Your task to perform on an android device: Go to calendar. Show me events next week Image 0: 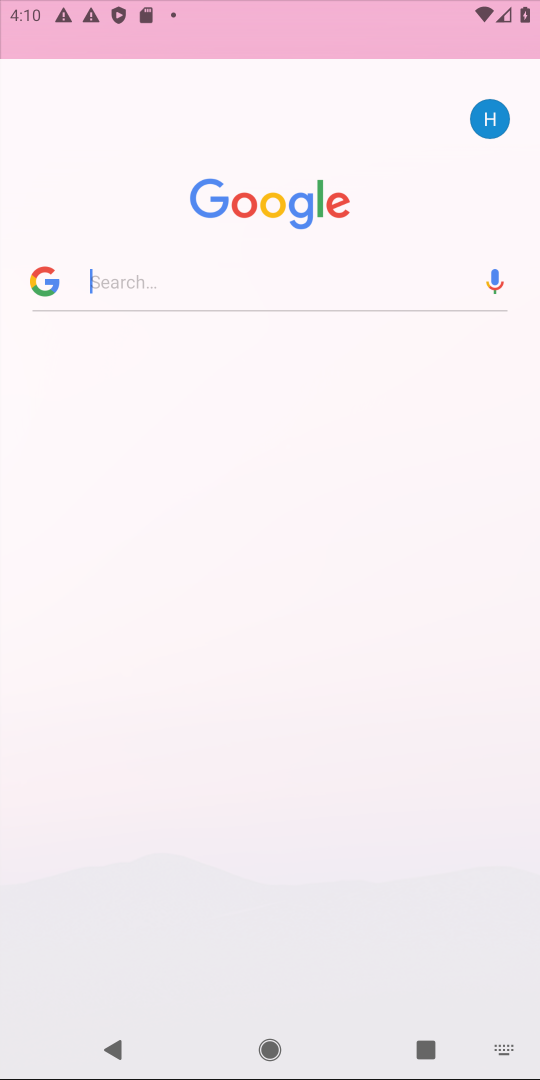
Step 0: press home button
Your task to perform on an android device: Go to calendar. Show me events next week Image 1: 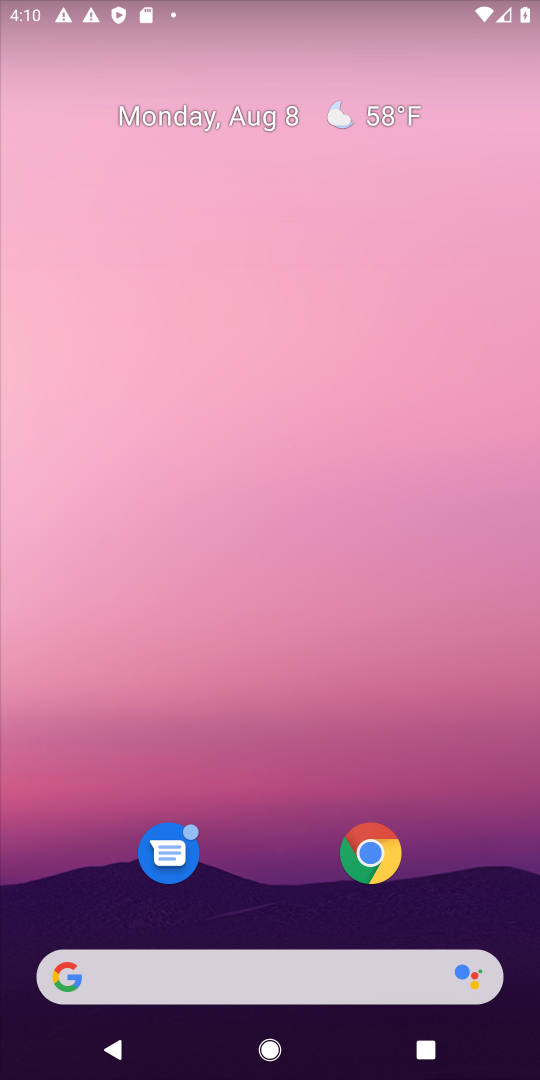
Step 1: drag from (298, 874) to (288, 90)
Your task to perform on an android device: Go to calendar. Show me events next week Image 2: 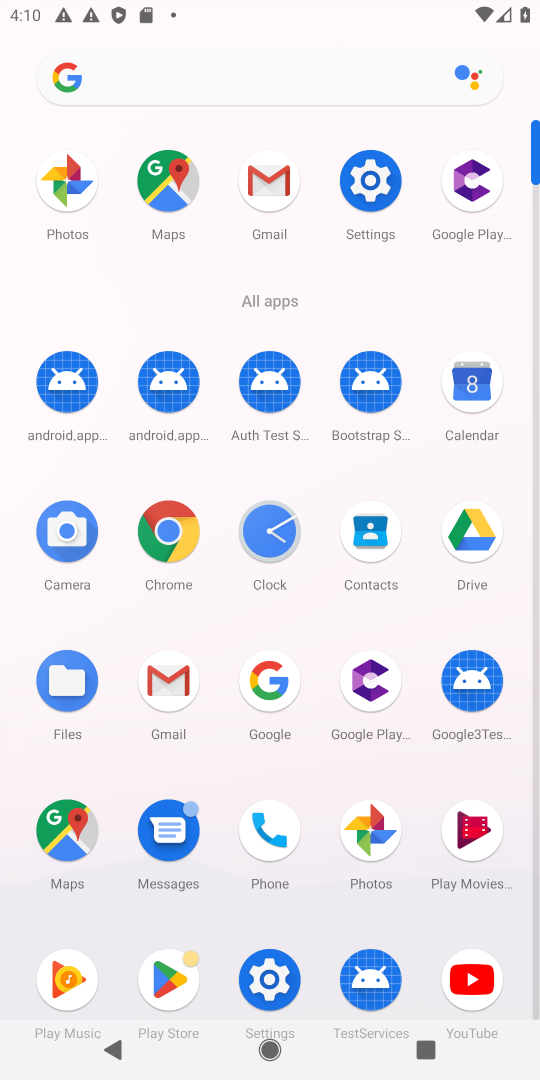
Step 2: click (469, 380)
Your task to perform on an android device: Go to calendar. Show me events next week Image 3: 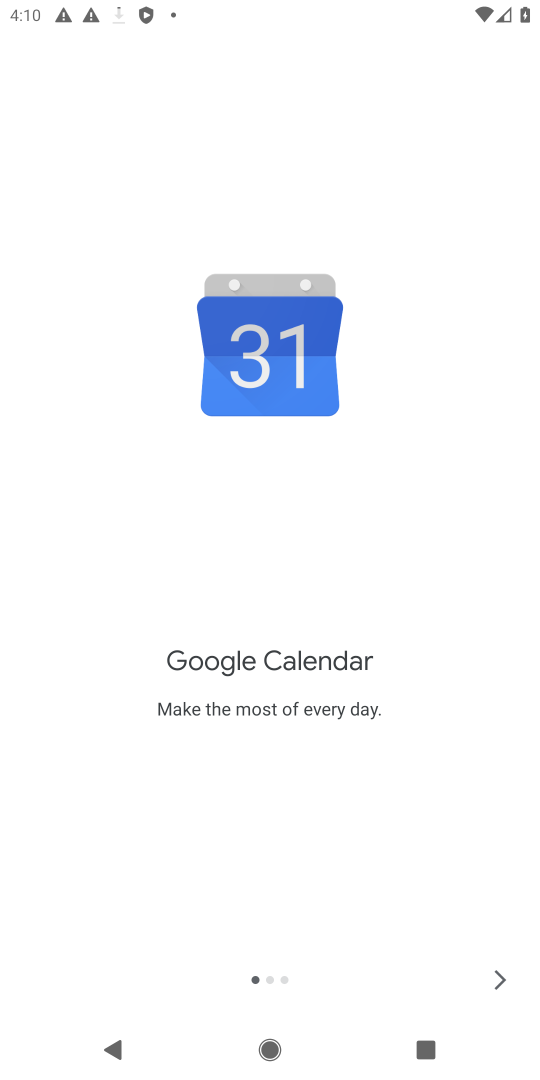
Step 3: click (501, 977)
Your task to perform on an android device: Go to calendar. Show me events next week Image 4: 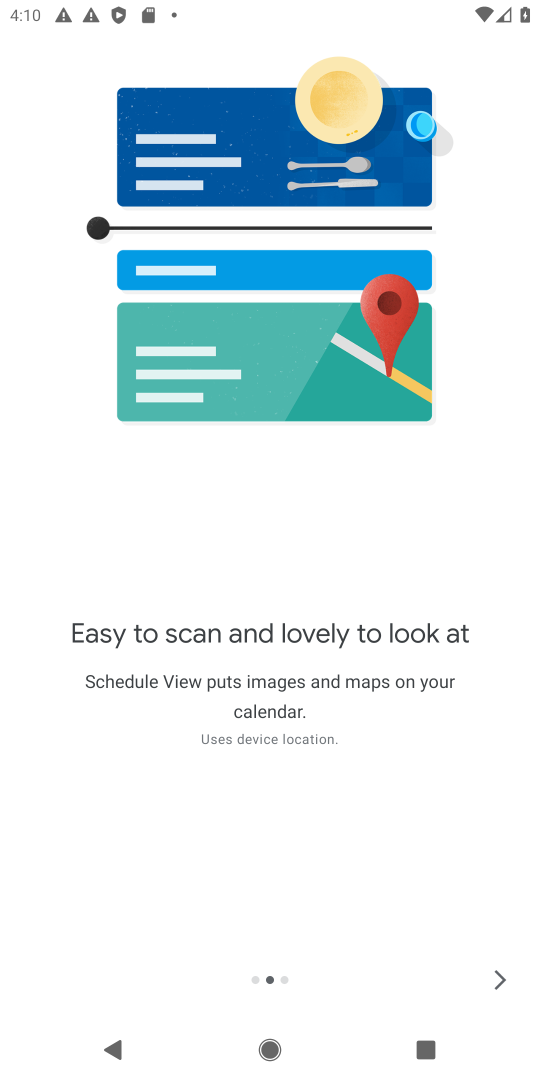
Step 4: click (501, 977)
Your task to perform on an android device: Go to calendar. Show me events next week Image 5: 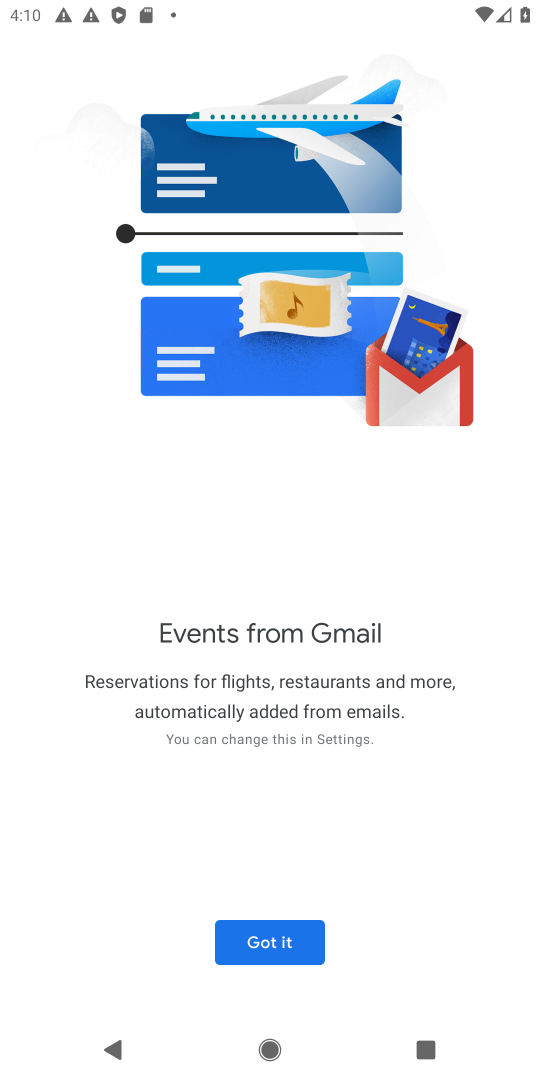
Step 5: click (293, 928)
Your task to perform on an android device: Go to calendar. Show me events next week Image 6: 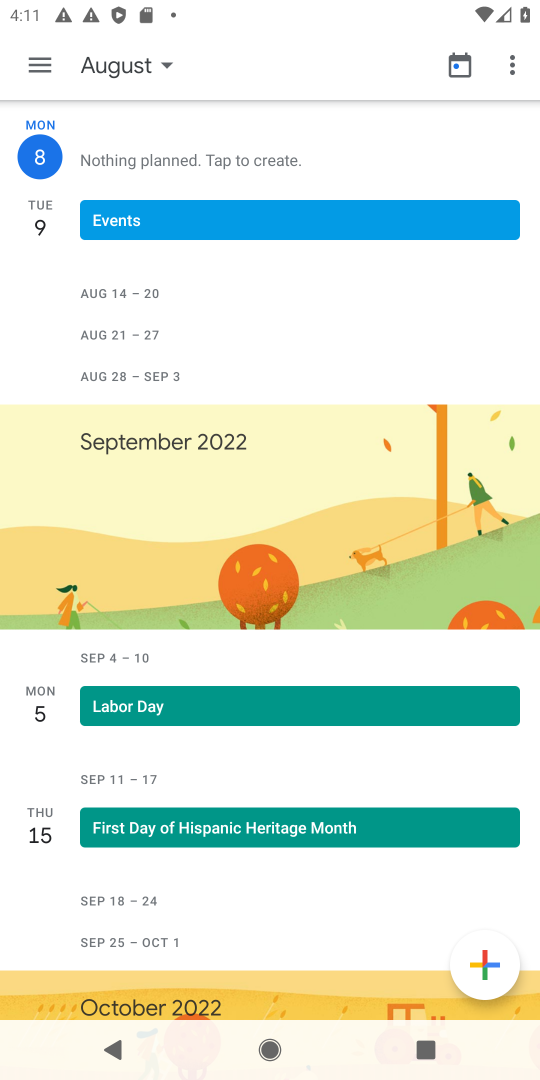
Step 6: click (146, 78)
Your task to perform on an android device: Go to calendar. Show me events next week Image 7: 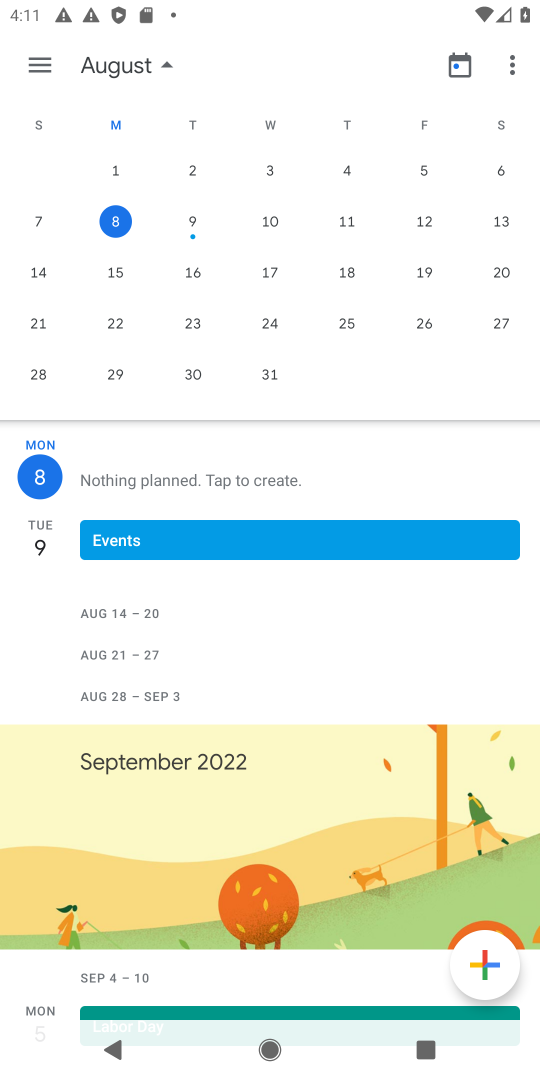
Step 7: click (107, 264)
Your task to perform on an android device: Go to calendar. Show me events next week Image 8: 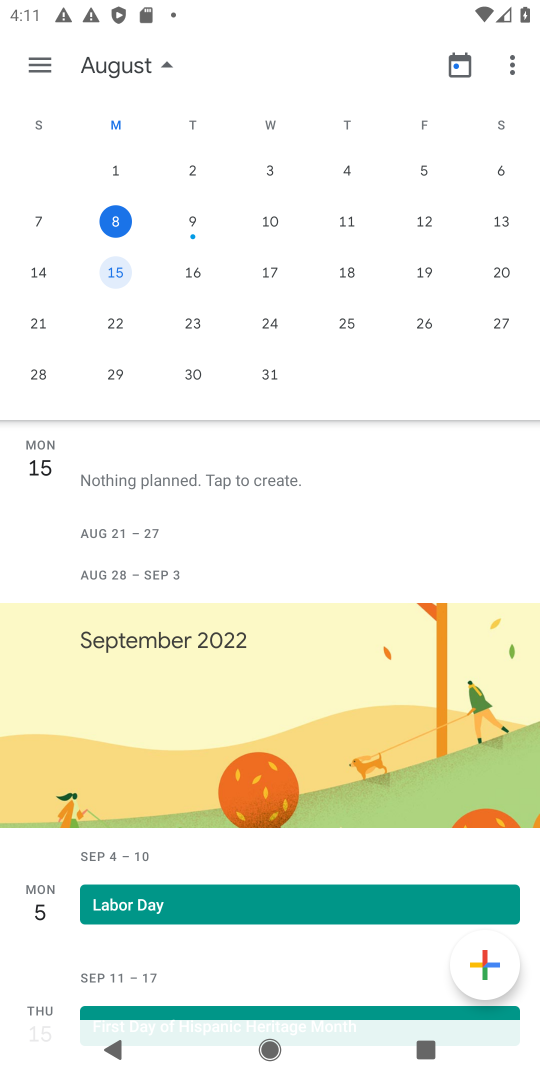
Step 8: task complete